Your task to perform on an android device: visit the assistant section in the google photos Image 0: 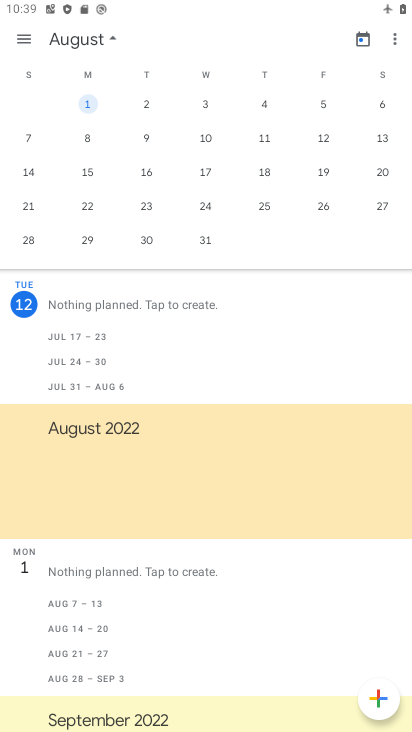
Step 0: press home button
Your task to perform on an android device: visit the assistant section in the google photos Image 1: 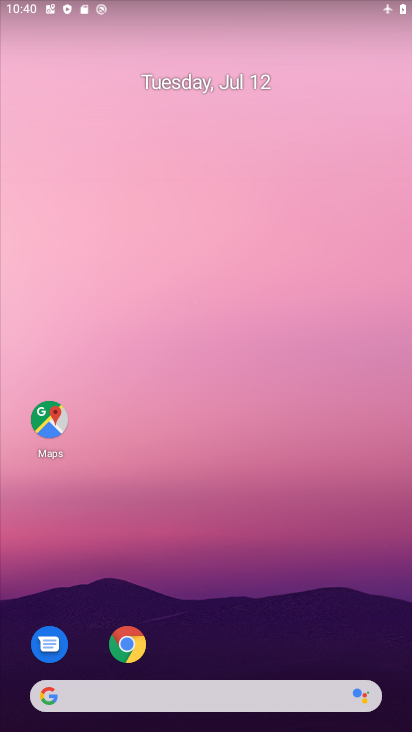
Step 1: drag from (172, 724) to (246, 21)
Your task to perform on an android device: visit the assistant section in the google photos Image 2: 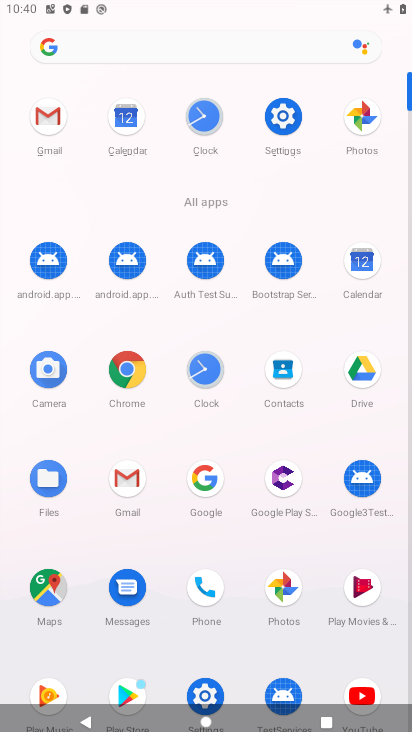
Step 2: click (287, 572)
Your task to perform on an android device: visit the assistant section in the google photos Image 3: 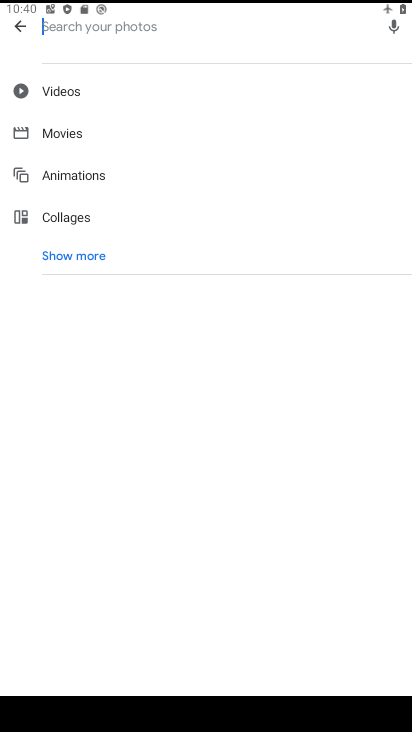
Step 3: click (21, 22)
Your task to perform on an android device: visit the assistant section in the google photos Image 4: 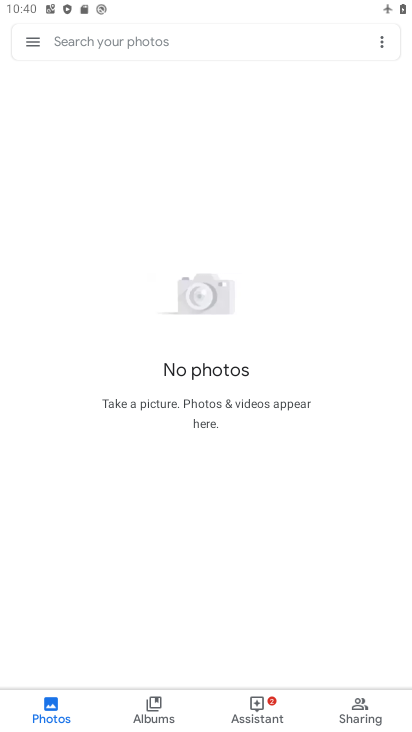
Step 4: click (261, 706)
Your task to perform on an android device: visit the assistant section in the google photos Image 5: 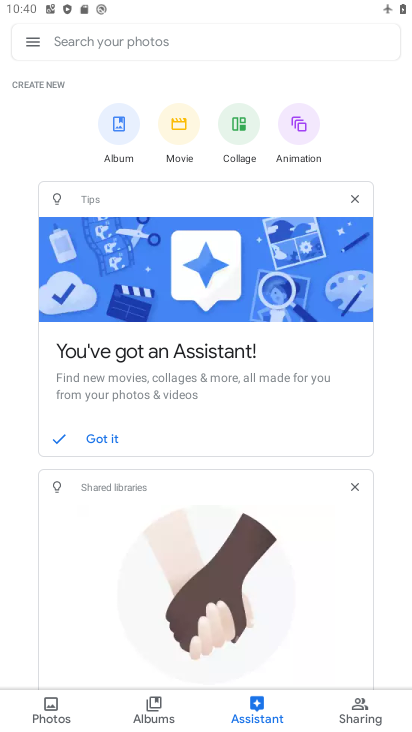
Step 5: task complete